Your task to perform on an android device: turn on javascript in the chrome app Image 0: 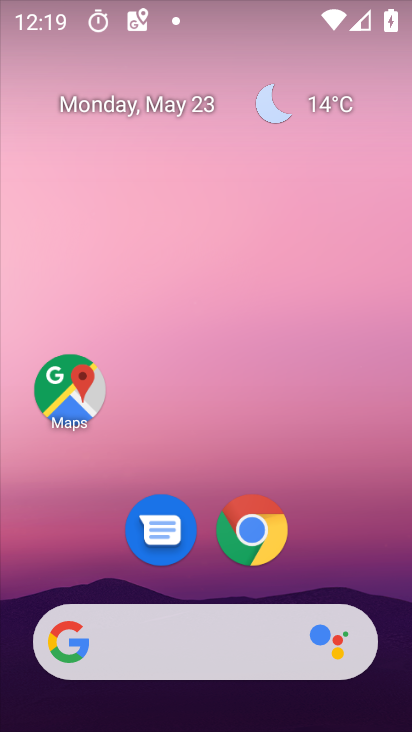
Step 0: click (256, 529)
Your task to perform on an android device: turn on javascript in the chrome app Image 1: 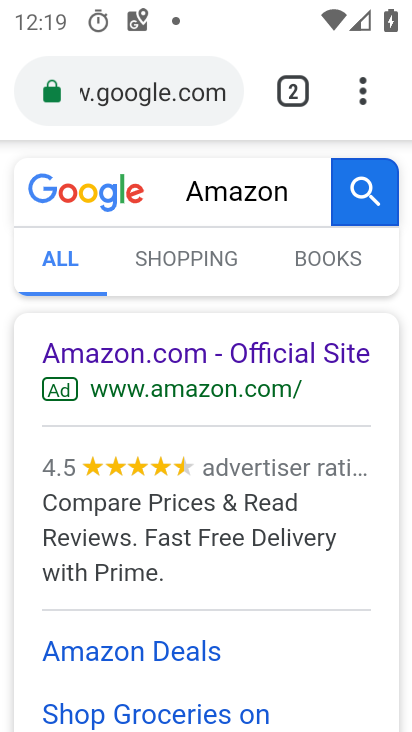
Step 1: click (357, 87)
Your task to perform on an android device: turn on javascript in the chrome app Image 2: 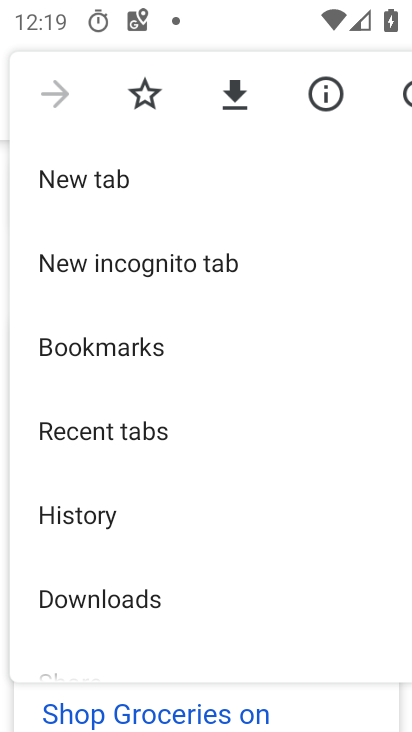
Step 2: drag from (306, 476) to (337, 353)
Your task to perform on an android device: turn on javascript in the chrome app Image 3: 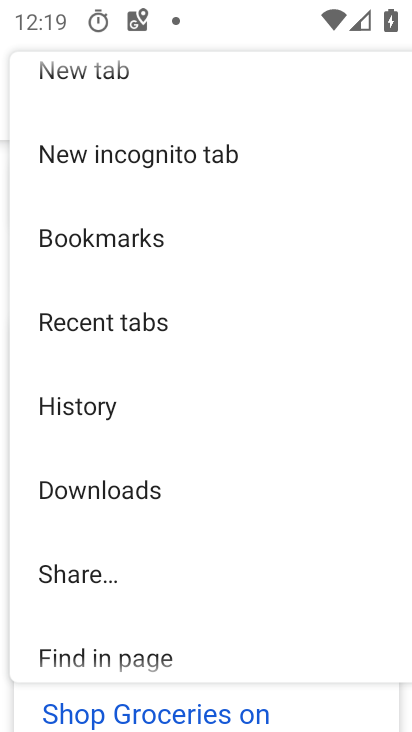
Step 3: drag from (306, 623) to (345, 232)
Your task to perform on an android device: turn on javascript in the chrome app Image 4: 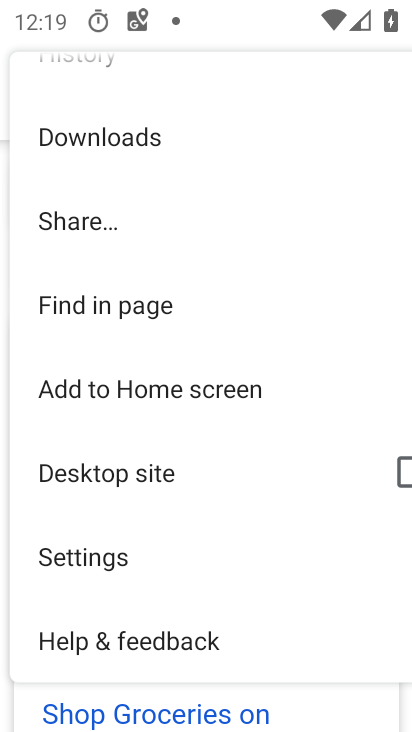
Step 4: click (57, 560)
Your task to perform on an android device: turn on javascript in the chrome app Image 5: 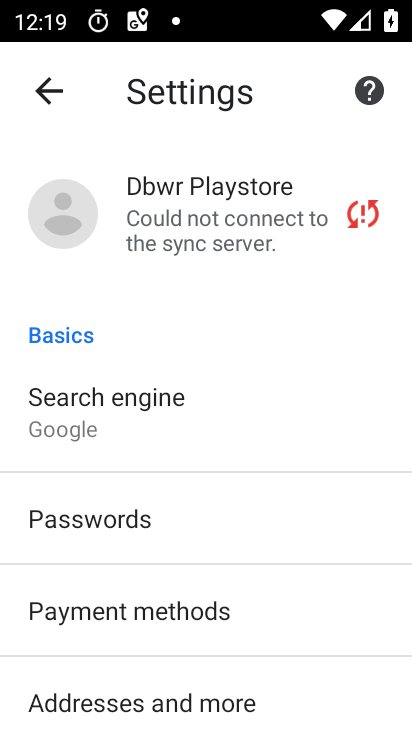
Step 5: drag from (341, 708) to (319, 410)
Your task to perform on an android device: turn on javascript in the chrome app Image 6: 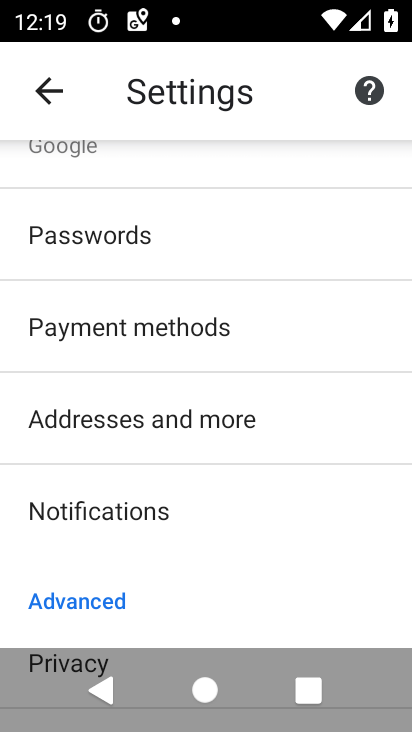
Step 6: drag from (286, 585) to (284, 378)
Your task to perform on an android device: turn on javascript in the chrome app Image 7: 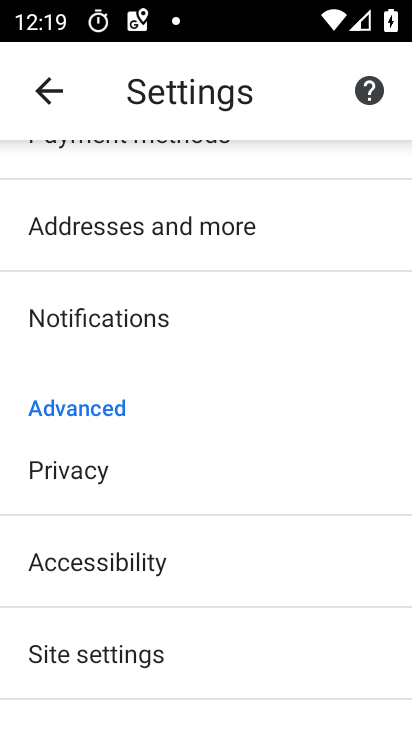
Step 7: click (96, 658)
Your task to perform on an android device: turn on javascript in the chrome app Image 8: 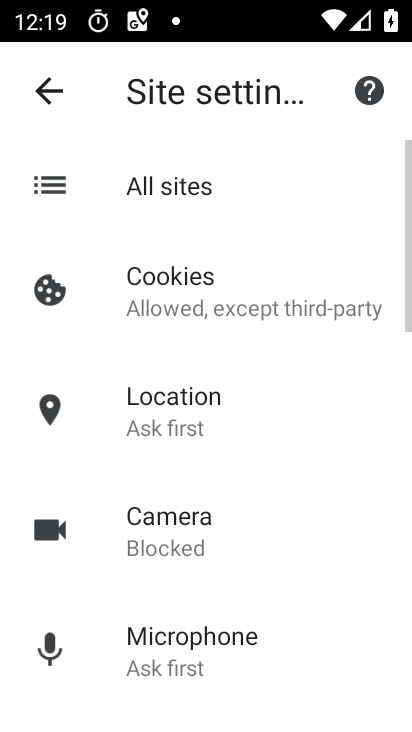
Step 8: drag from (308, 687) to (306, 418)
Your task to perform on an android device: turn on javascript in the chrome app Image 9: 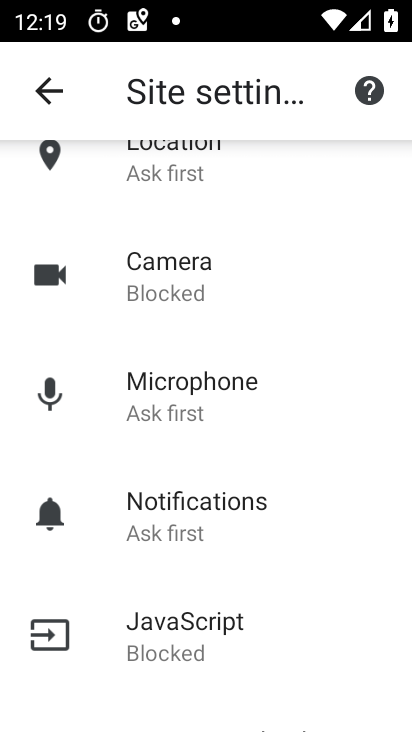
Step 9: drag from (270, 668) to (258, 361)
Your task to perform on an android device: turn on javascript in the chrome app Image 10: 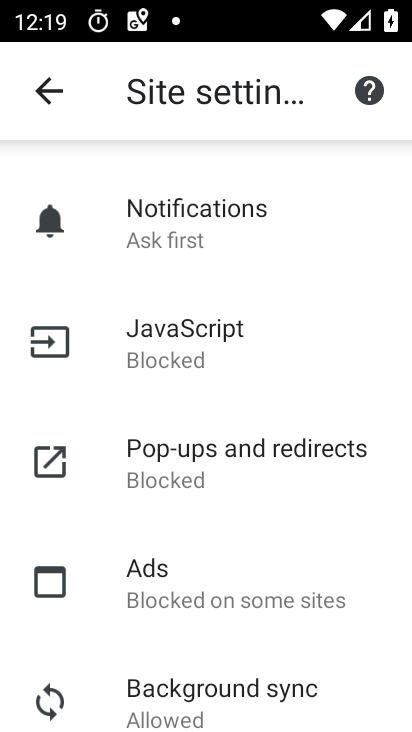
Step 10: click (222, 335)
Your task to perform on an android device: turn on javascript in the chrome app Image 11: 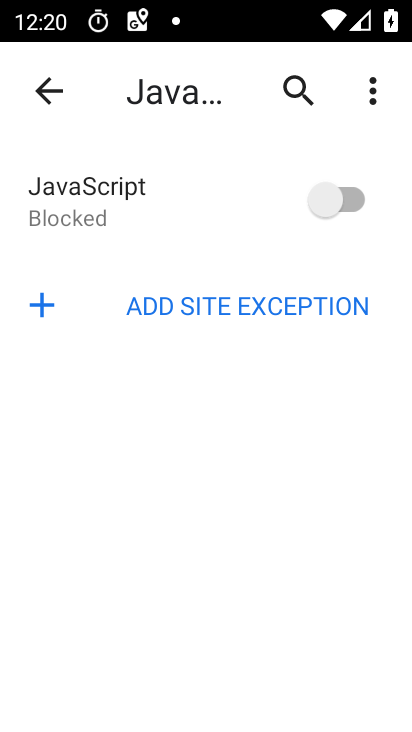
Step 11: click (363, 196)
Your task to perform on an android device: turn on javascript in the chrome app Image 12: 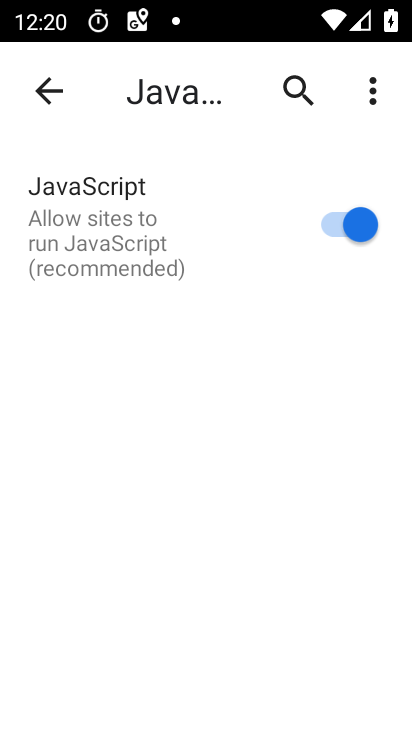
Step 12: task complete